Your task to perform on an android device: How do I get to the nearest Walmart? Image 0: 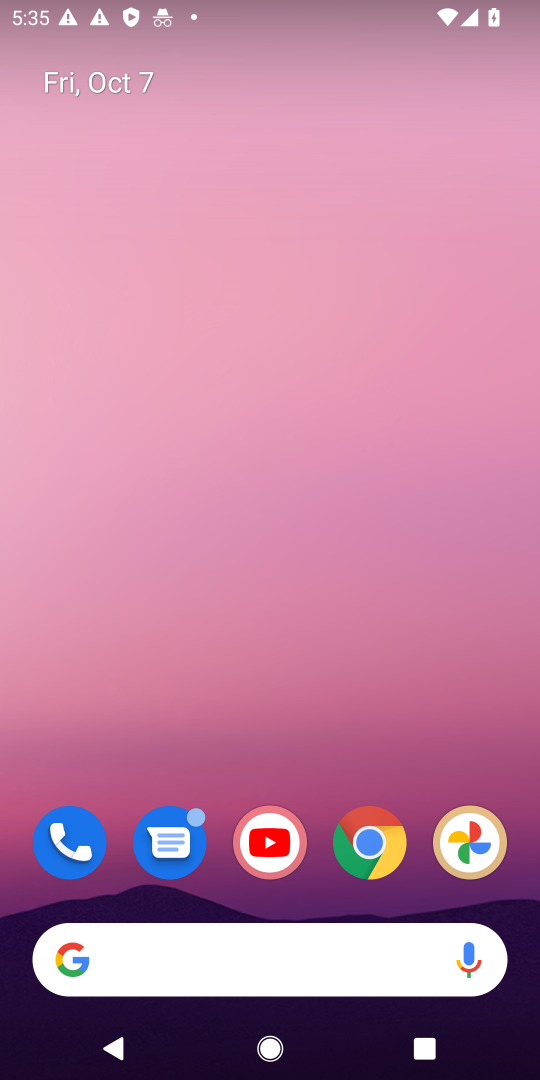
Step 0: click (231, 922)
Your task to perform on an android device: How do I get to the nearest Walmart? Image 1: 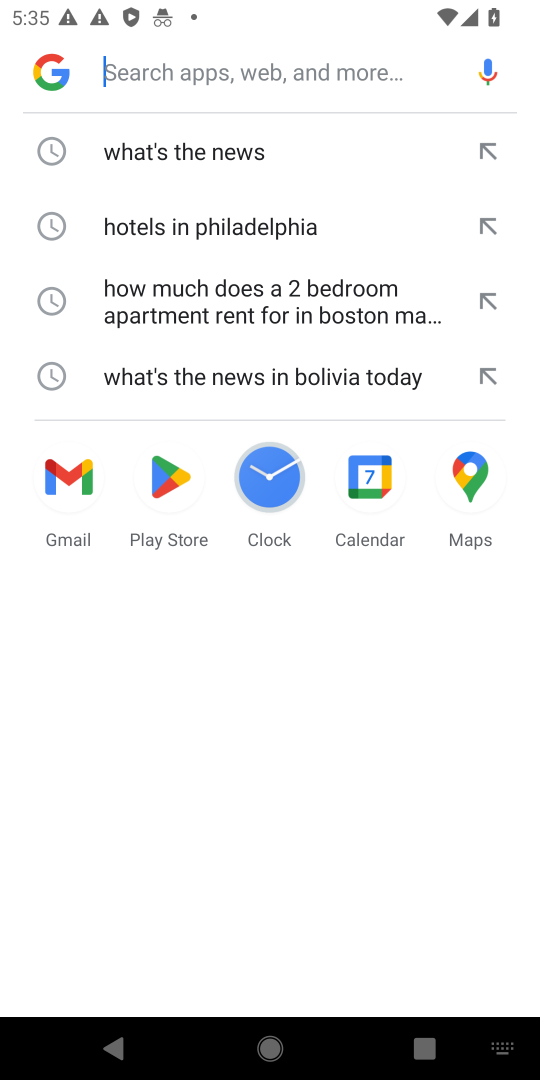
Step 1: click (88, 65)
Your task to perform on an android device: How do I get to the nearest Walmart? Image 2: 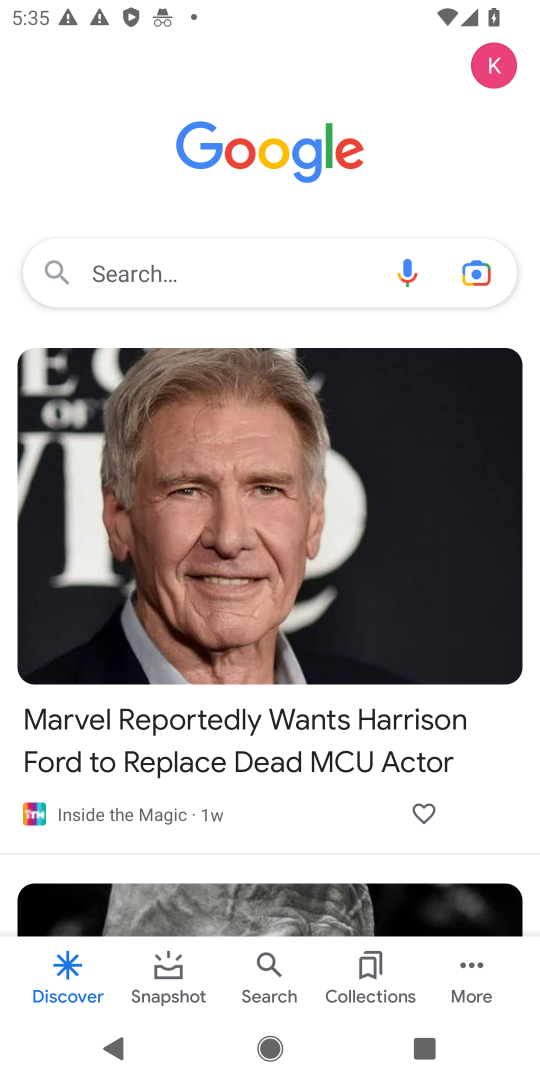
Step 2: type "How do I get to the nearest Walmart"
Your task to perform on an android device: How do I get to the nearest Walmart? Image 3: 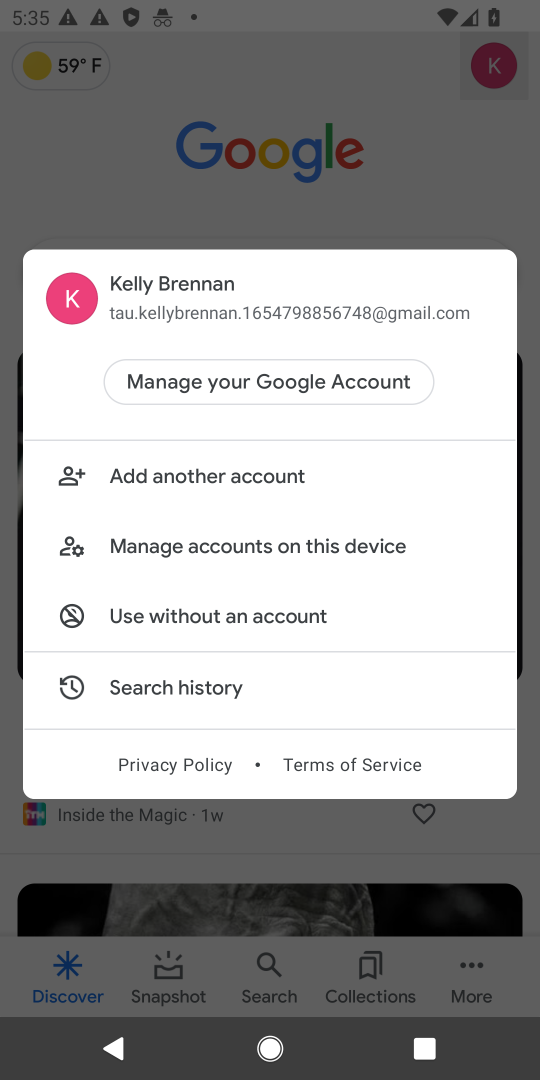
Step 3: type "How do I get to the nearest Walmart"
Your task to perform on an android device: How do I get to the nearest Walmart? Image 4: 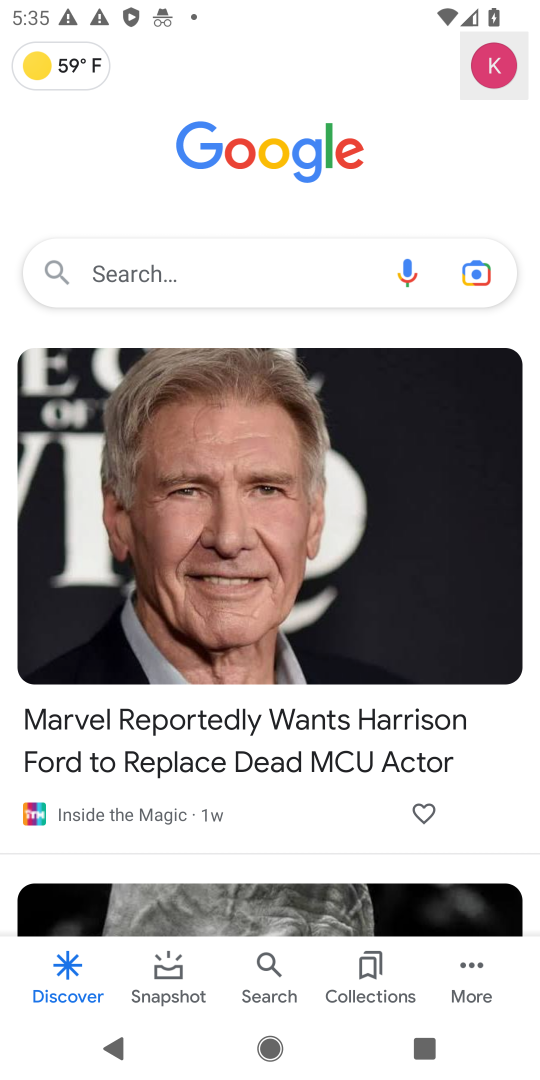
Step 4: click (101, 289)
Your task to perform on an android device: How do I get to the nearest Walmart? Image 5: 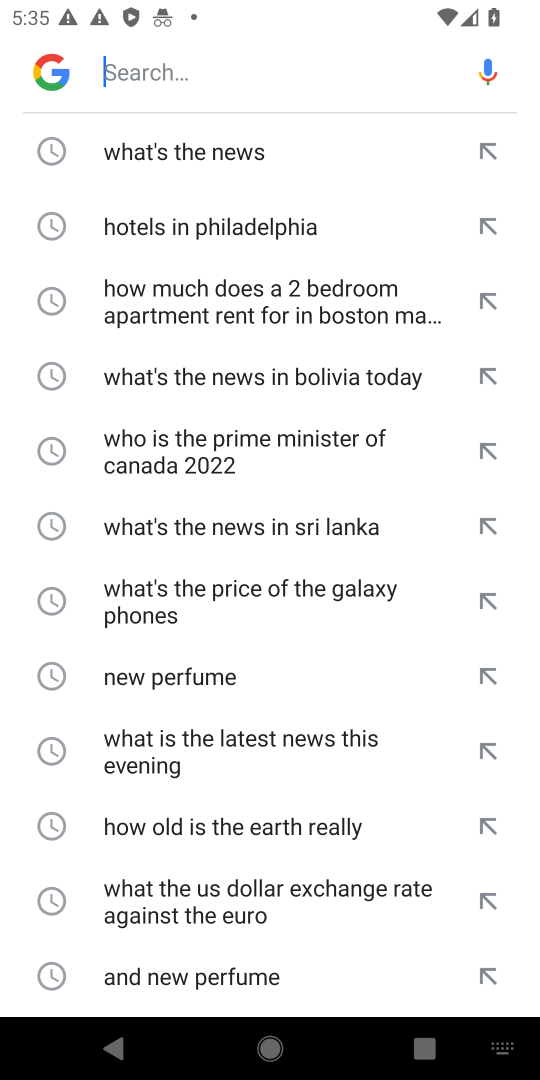
Step 5: type "How do I get to the nearest Walmart?"
Your task to perform on an android device: How do I get to the nearest Walmart? Image 6: 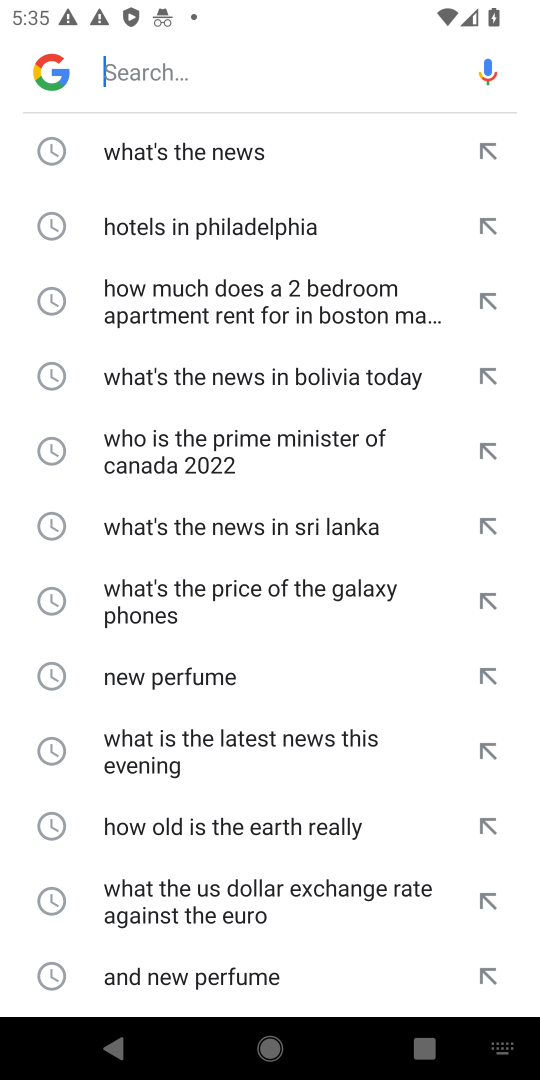
Step 6: click (228, 96)
Your task to perform on an android device: How do I get to the nearest Walmart? Image 7: 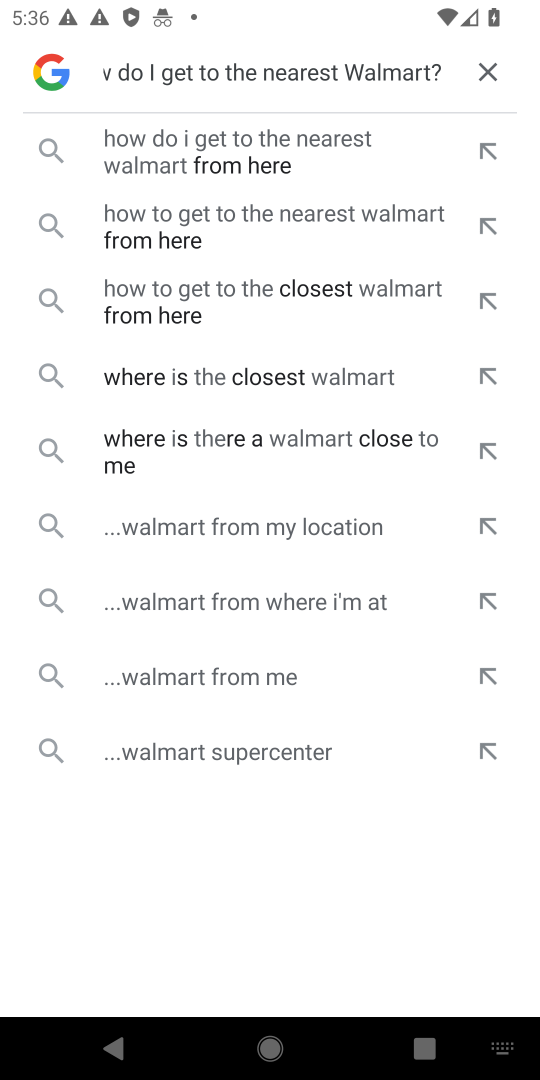
Step 7: click (436, 82)
Your task to perform on an android device: How do I get to the nearest Walmart? Image 8: 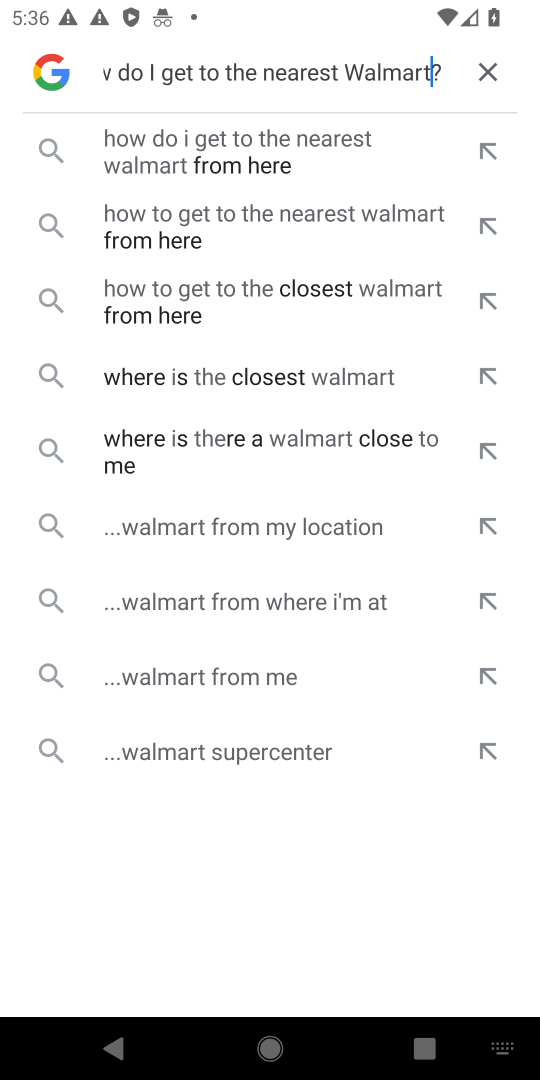
Step 8: click (243, 163)
Your task to perform on an android device: How do I get to the nearest Walmart? Image 9: 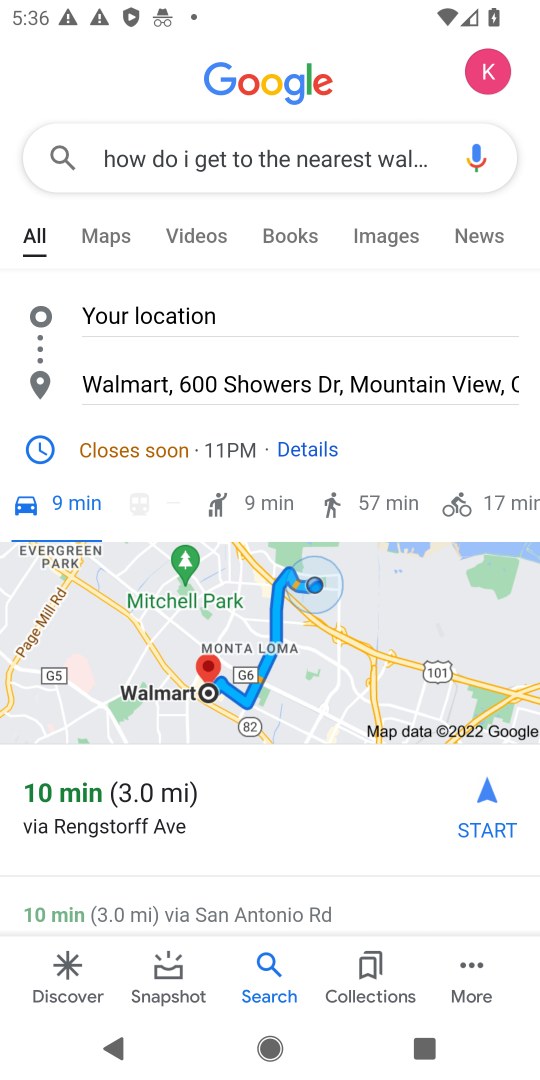
Step 9: task complete